Your task to perform on an android device: Do I have any events this weekend? Image 0: 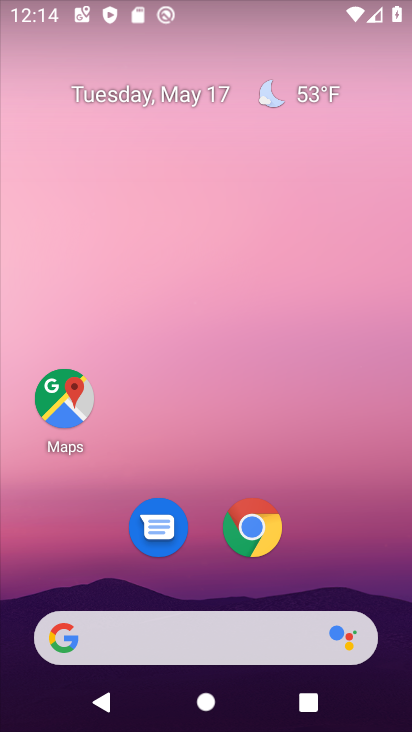
Step 0: drag from (332, 517) to (336, 125)
Your task to perform on an android device: Do I have any events this weekend? Image 1: 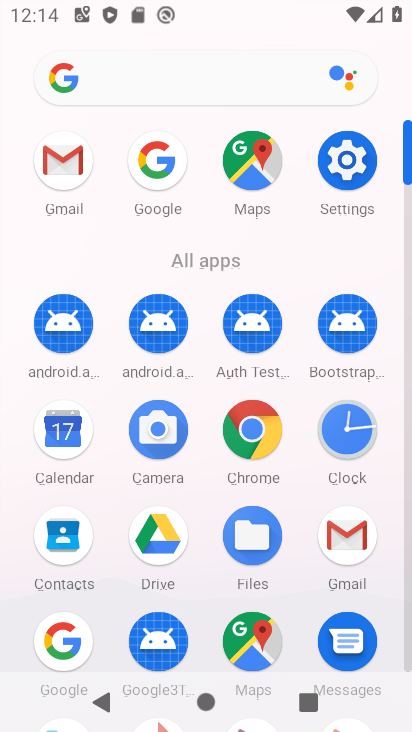
Step 1: click (245, 429)
Your task to perform on an android device: Do I have any events this weekend? Image 2: 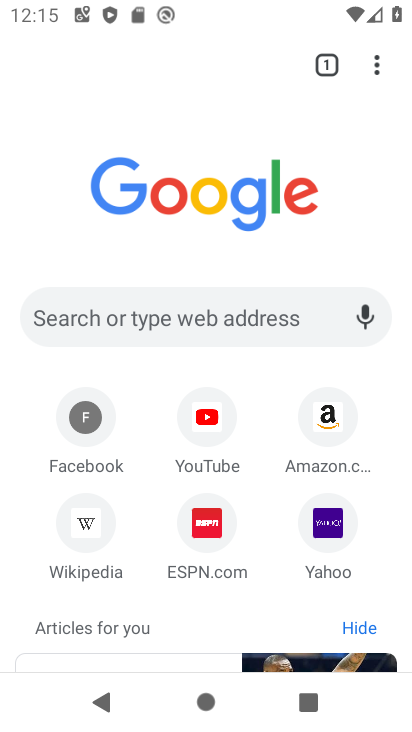
Step 2: click (133, 325)
Your task to perform on an android device: Do I have any events this weekend? Image 3: 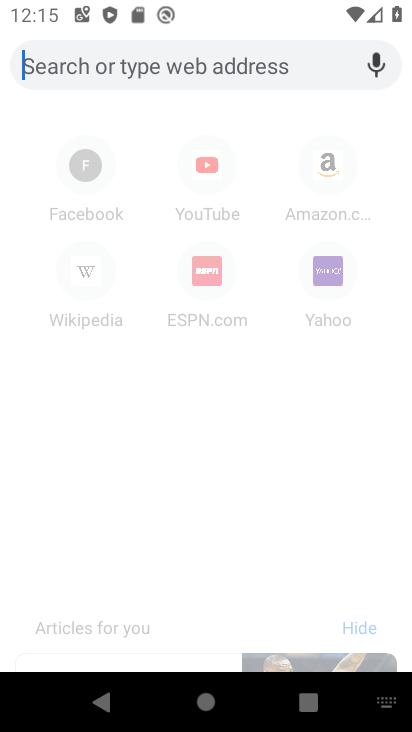
Step 3: type "do i have any event this weekend"
Your task to perform on an android device: Do I have any events this weekend? Image 4: 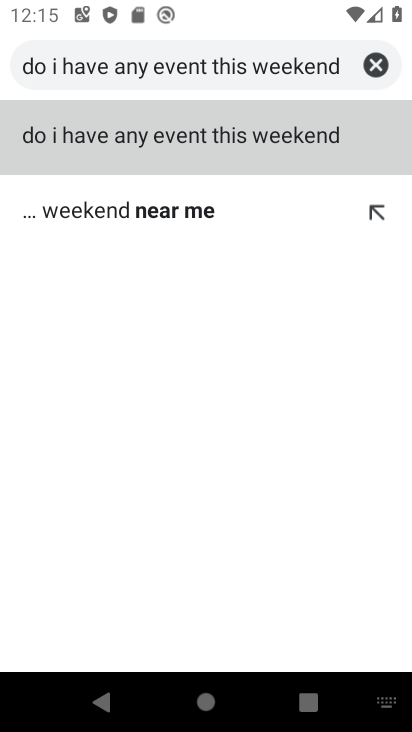
Step 4: click (145, 159)
Your task to perform on an android device: Do I have any events this weekend? Image 5: 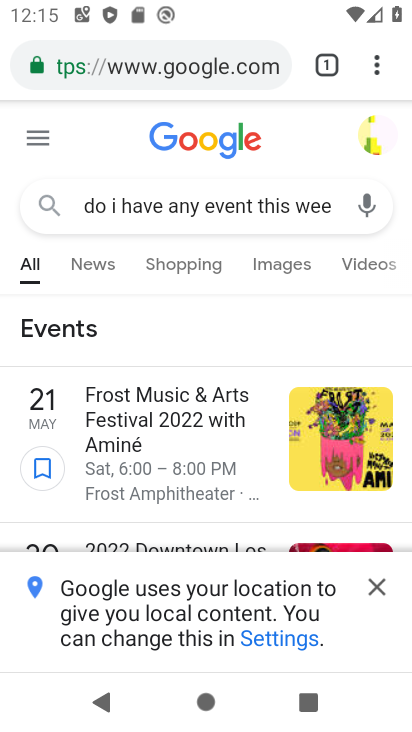
Step 5: task complete